Your task to perform on an android device: add a contact Image 0: 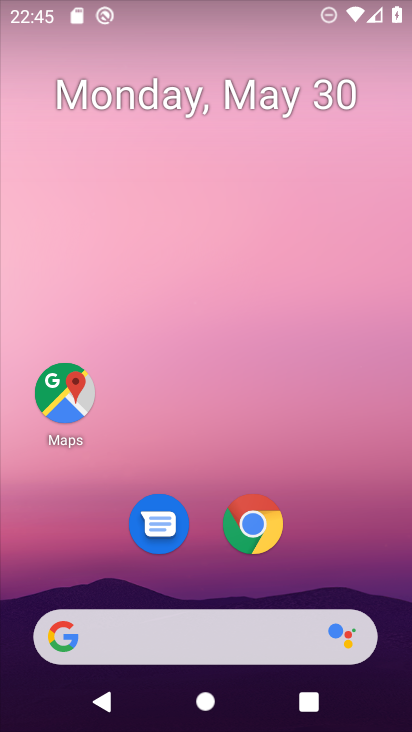
Step 0: drag from (271, 456) to (259, 4)
Your task to perform on an android device: add a contact Image 1: 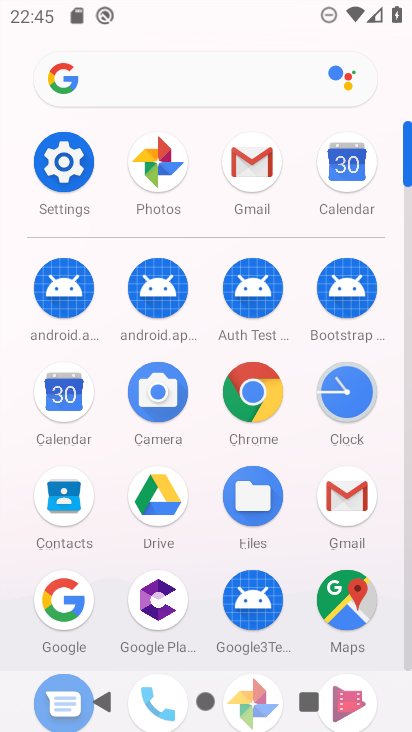
Step 1: click (68, 482)
Your task to perform on an android device: add a contact Image 2: 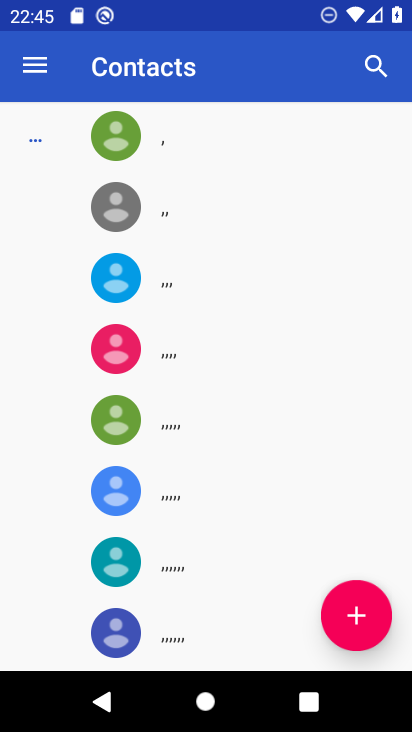
Step 2: click (361, 602)
Your task to perform on an android device: add a contact Image 3: 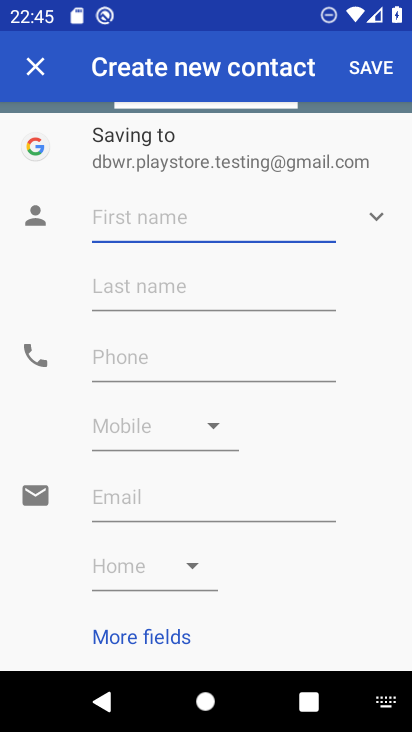
Step 3: type "Combodia Shiv Temple"
Your task to perform on an android device: add a contact Image 4: 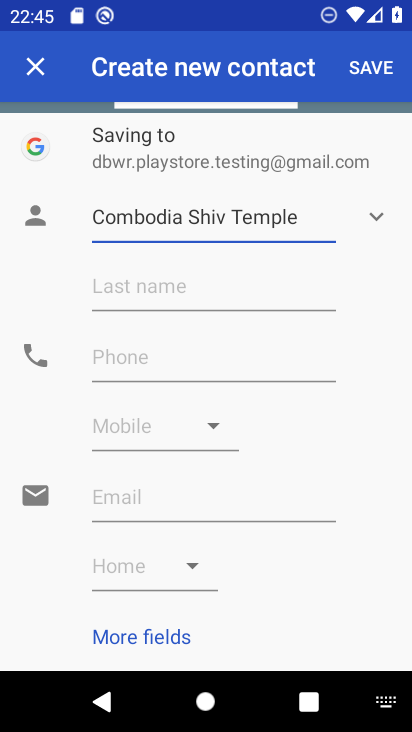
Step 4: click (204, 358)
Your task to perform on an android device: add a contact Image 5: 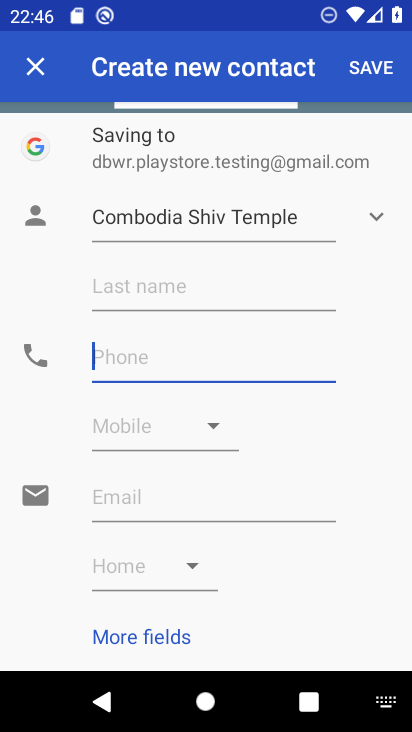
Step 5: type "91999775533"
Your task to perform on an android device: add a contact Image 6: 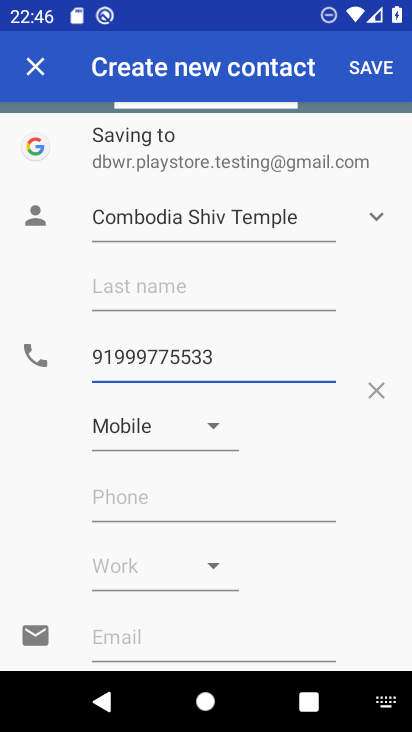
Step 6: click (372, 68)
Your task to perform on an android device: add a contact Image 7: 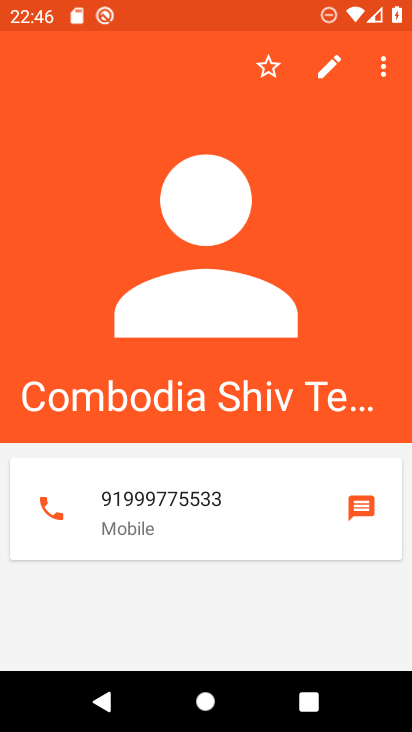
Step 7: task complete